Your task to perform on an android device: clear history in the chrome app Image 0: 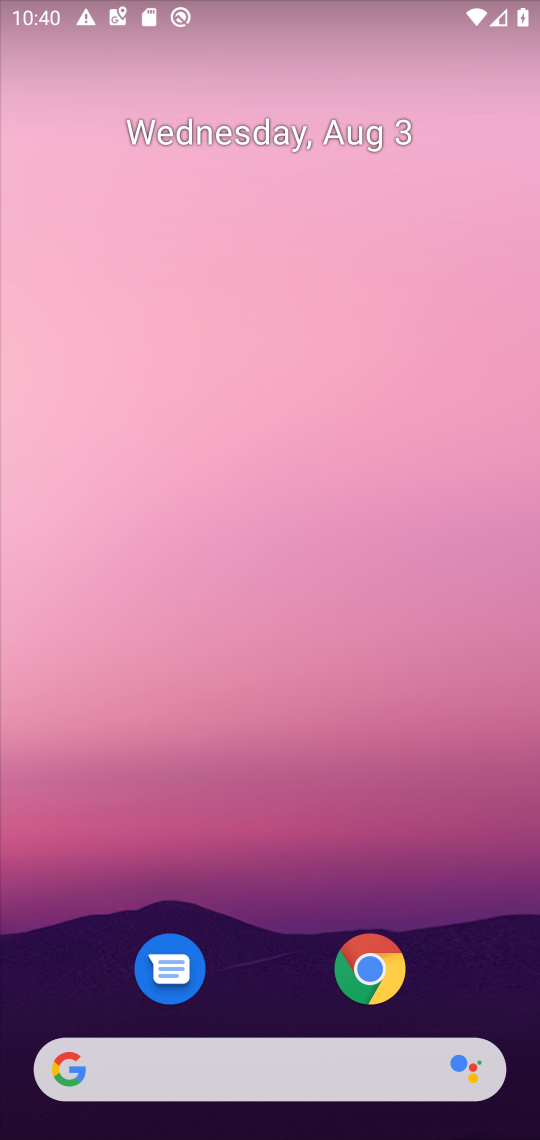
Step 0: drag from (305, 1042) to (341, 29)
Your task to perform on an android device: clear history in the chrome app Image 1: 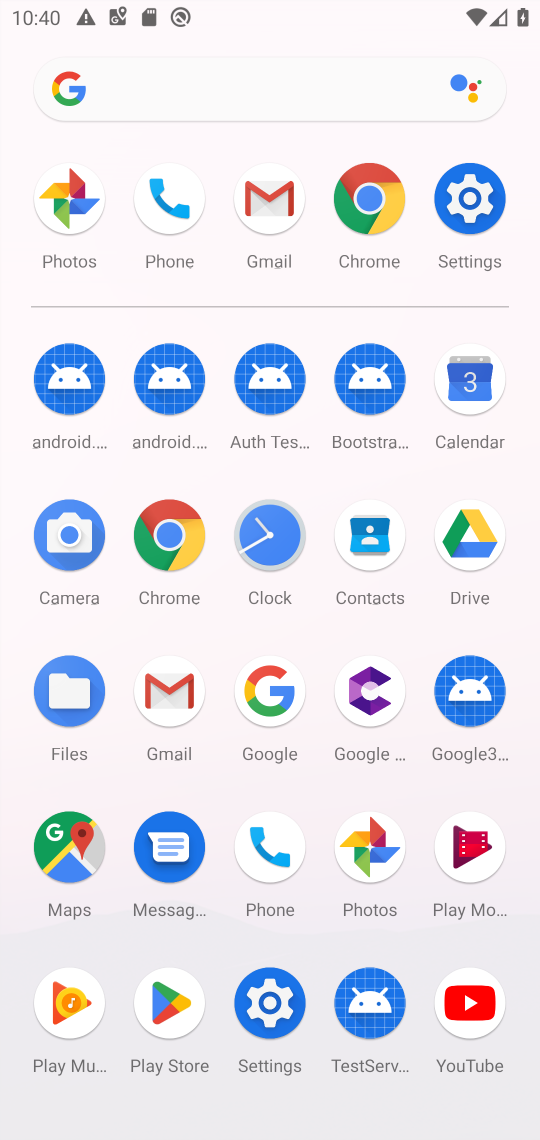
Step 1: click (168, 560)
Your task to perform on an android device: clear history in the chrome app Image 2: 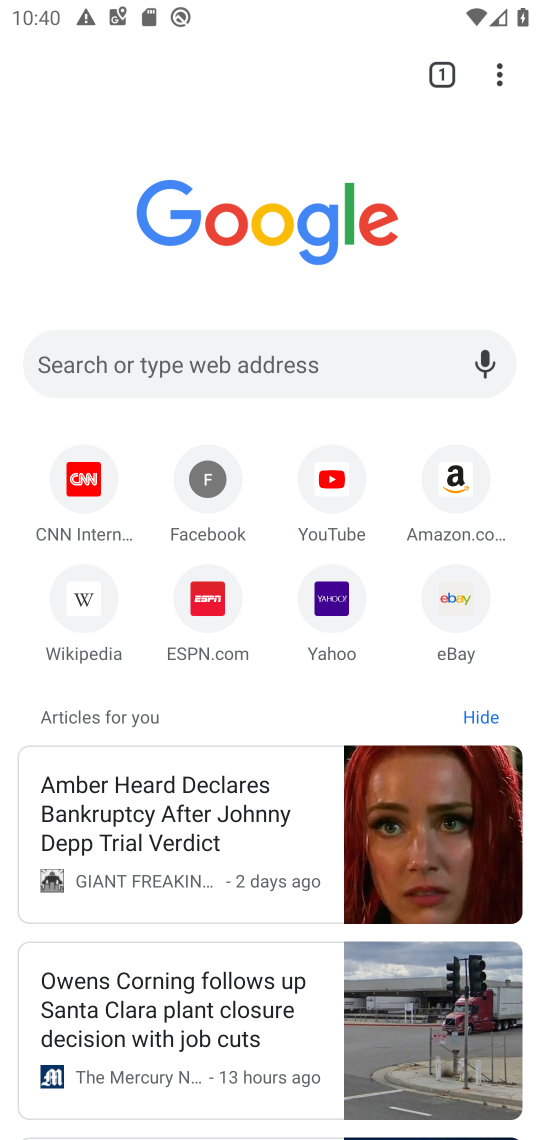
Step 2: drag from (488, 75) to (231, 431)
Your task to perform on an android device: clear history in the chrome app Image 3: 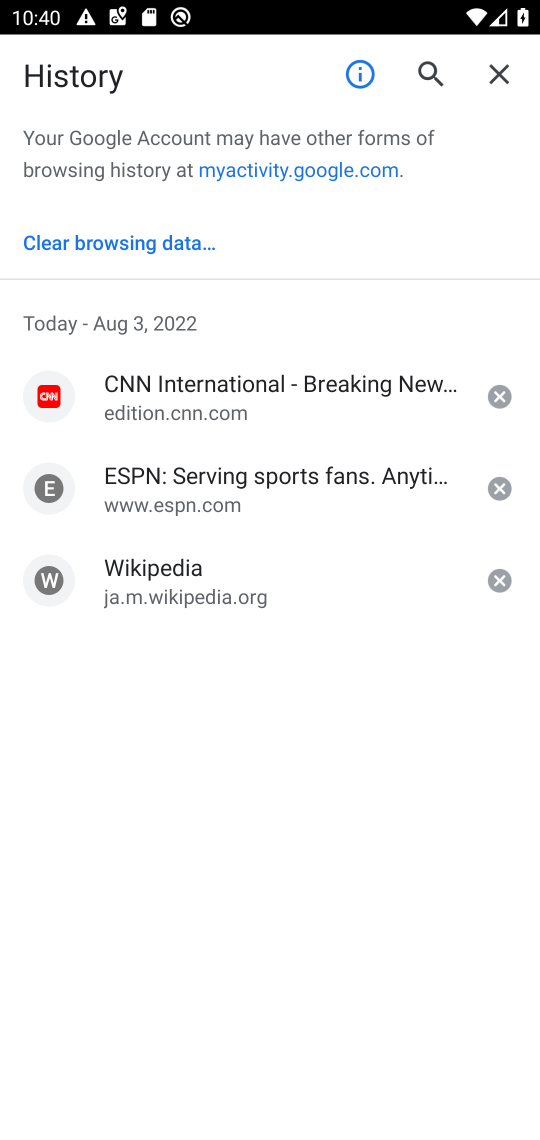
Step 3: click (145, 253)
Your task to perform on an android device: clear history in the chrome app Image 4: 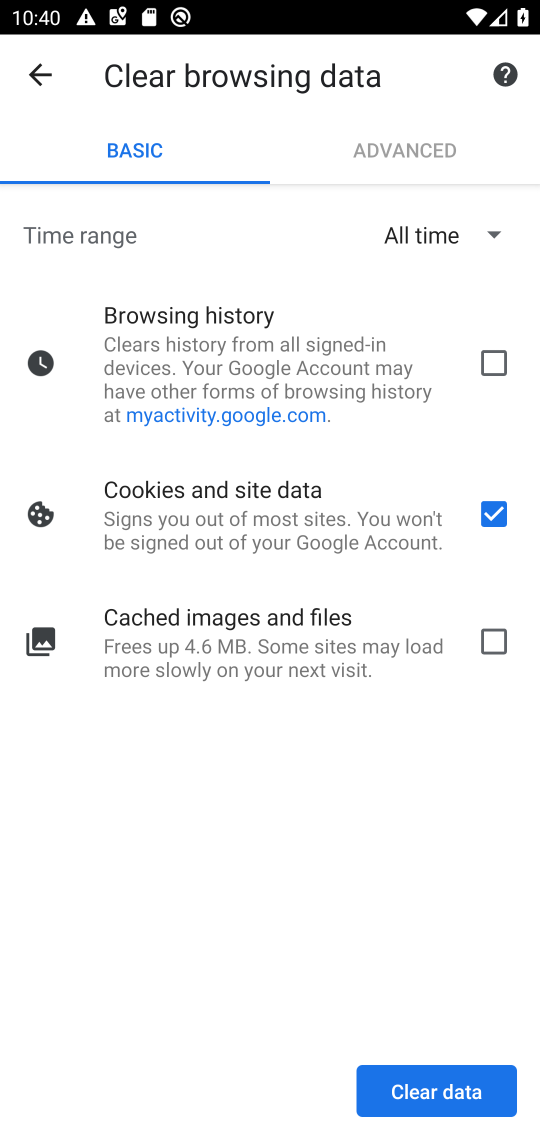
Step 4: click (475, 635)
Your task to perform on an android device: clear history in the chrome app Image 5: 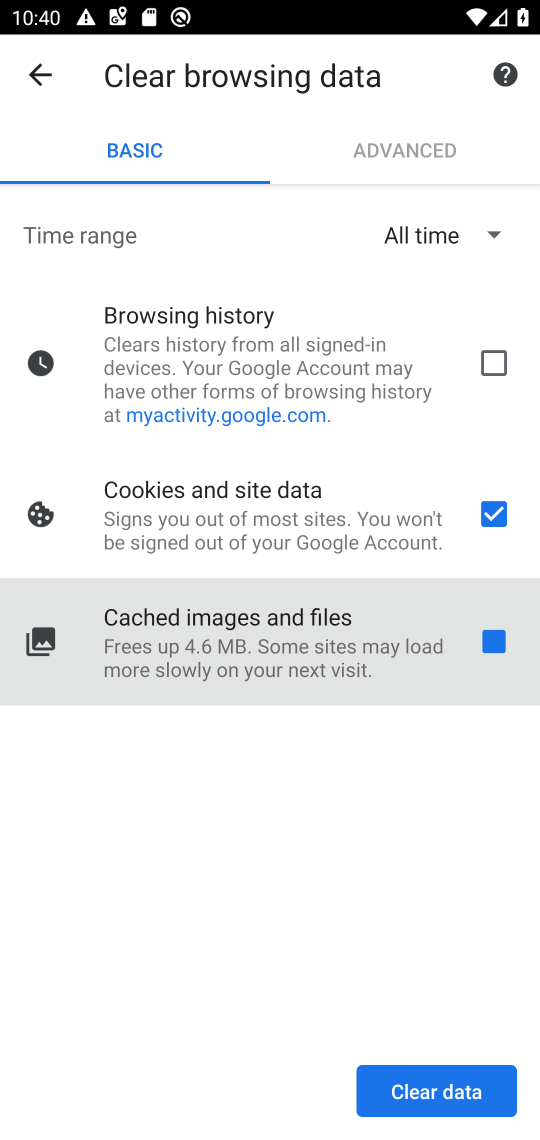
Step 5: click (490, 371)
Your task to perform on an android device: clear history in the chrome app Image 6: 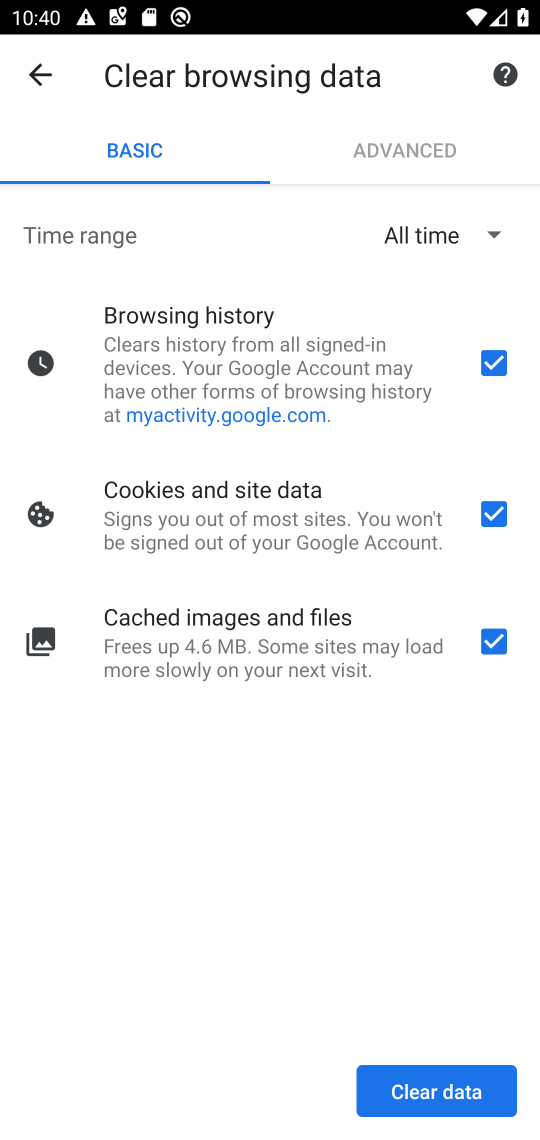
Step 6: click (453, 1094)
Your task to perform on an android device: clear history in the chrome app Image 7: 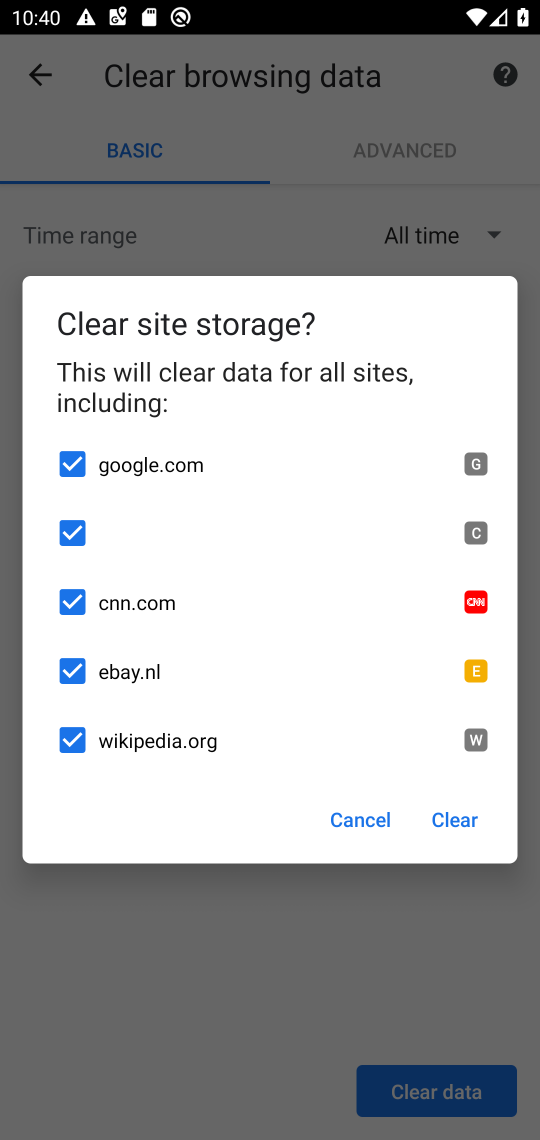
Step 7: click (451, 820)
Your task to perform on an android device: clear history in the chrome app Image 8: 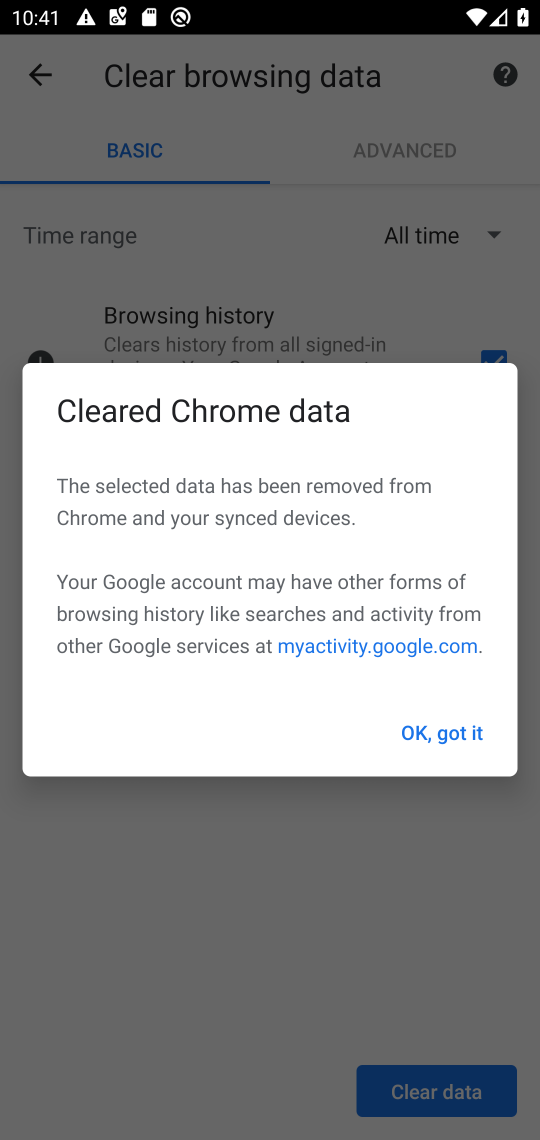
Step 8: click (454, 735)
Your task to perform on an android device: clear history in the chrome app Image 9: 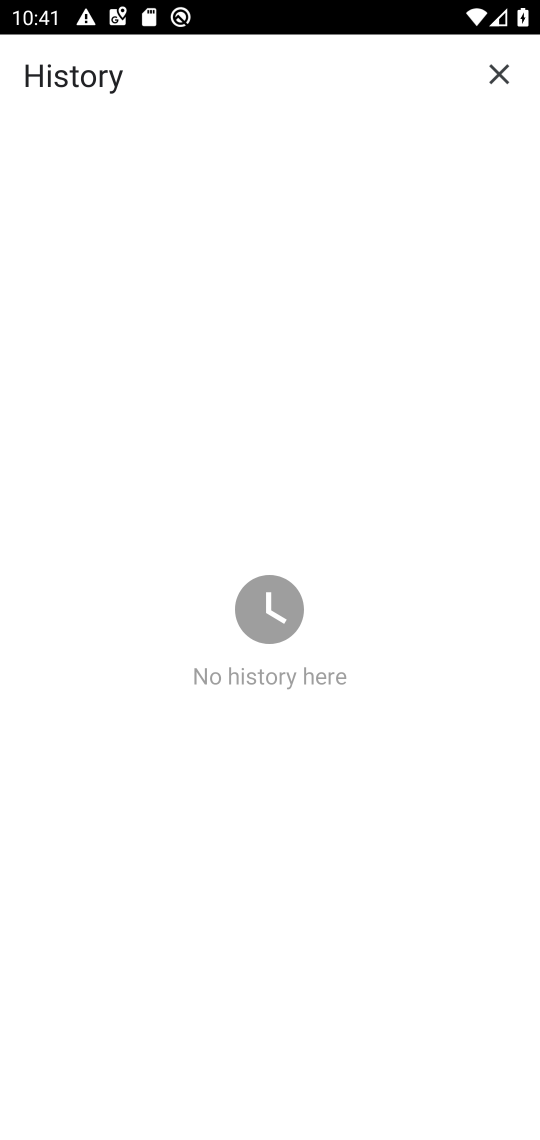
Step 9: task complete